Your task to perform on an android device: Toggle the flashlight Image 0: 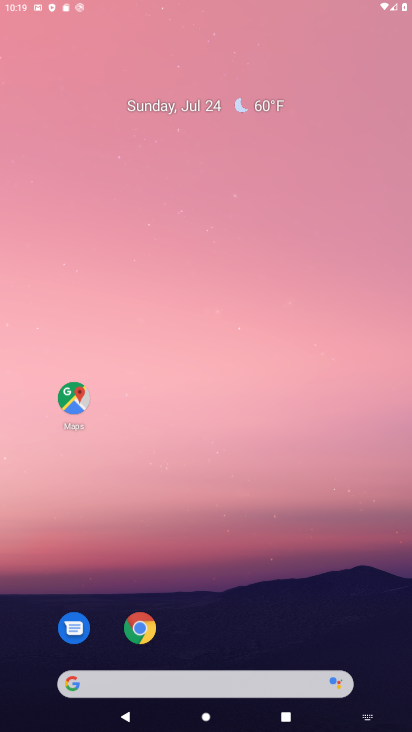
Step 0: drag from (205, 174) to (205, 113)
Your task to perform on an android device: Toggle the flashlight Image 1: 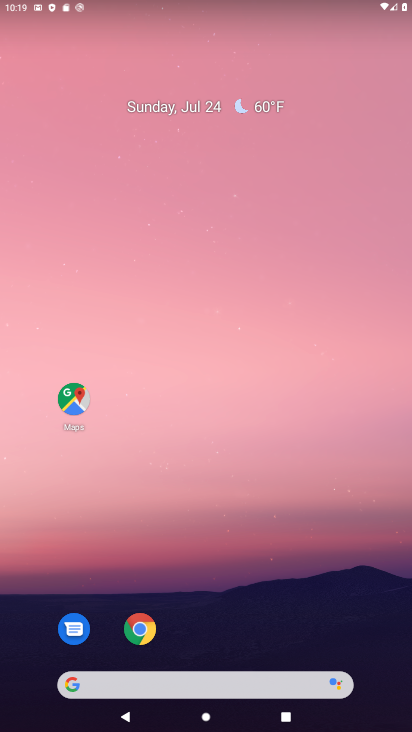
Step 1: task complete